Your task to perform on an android device: open the mobile data screen to see how much data has been used Image 0: 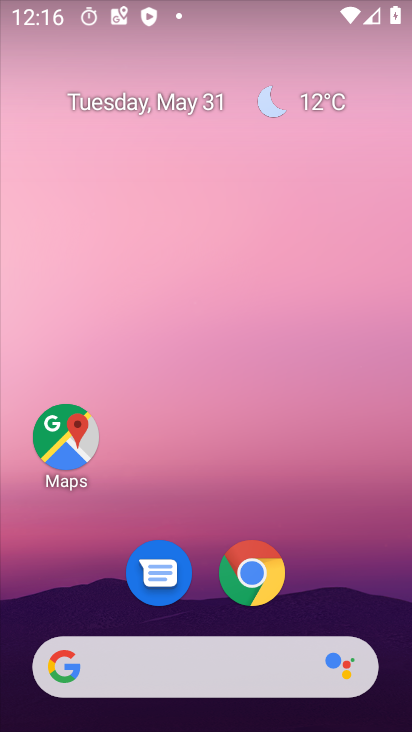
Step 0: click (321, 162)
Your task to perform on an android device: open the mobile data screen to see how much data has been used Image 1: 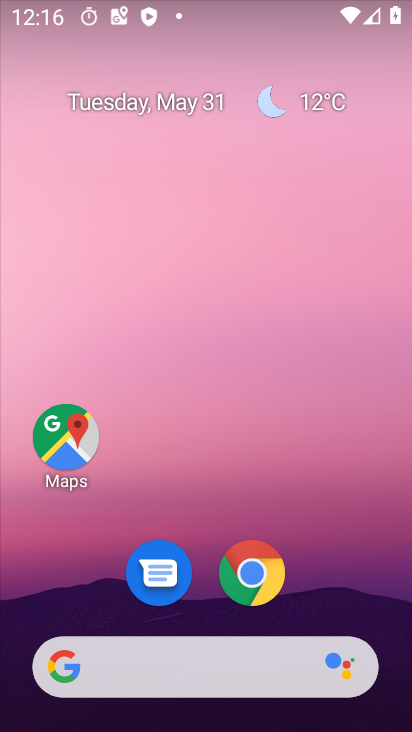
Step 1: drag from (343, 491) to (355, 122)
Your task to perform on an android device: open the mobile data screen to see how much data has been used Image 2: 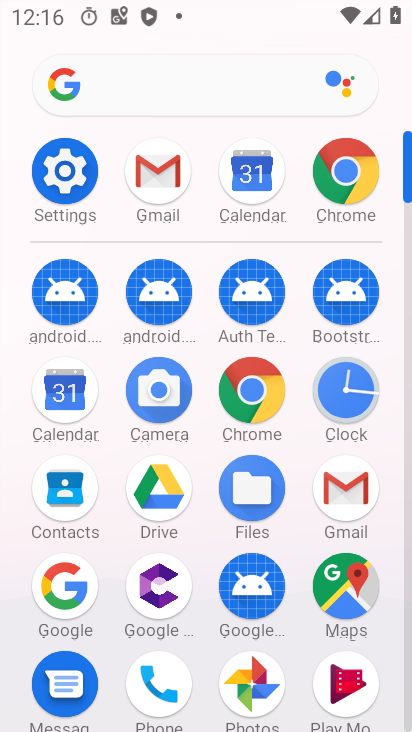
Step 2: click (58, 168)
Your task to perform on an android device: open the mobile data screen to see how much data has been used Image 3: 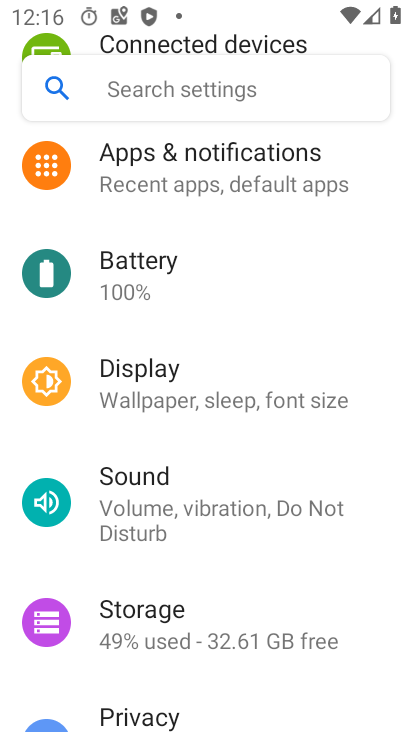
Step 3: drag from (149, 269) to (225, 589)
Your task to perform on an android device: open the mobile data screen to see how much data has been used Image 4: 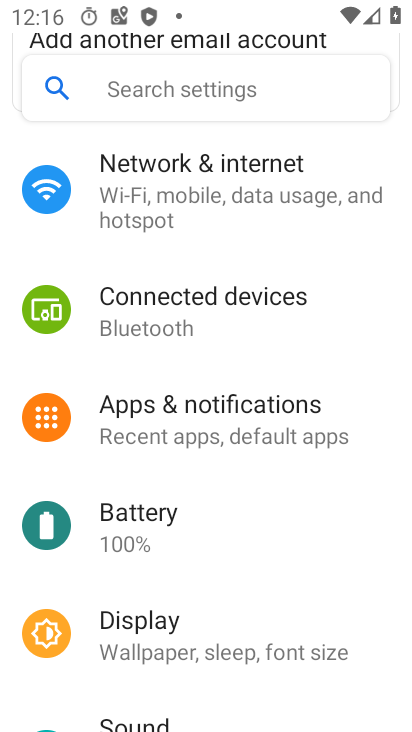
Step 4: drag from (224, 224) to (326, 622)
Your task to perform on an android device: open the mobile data screen to see how much data has been used Image 5: 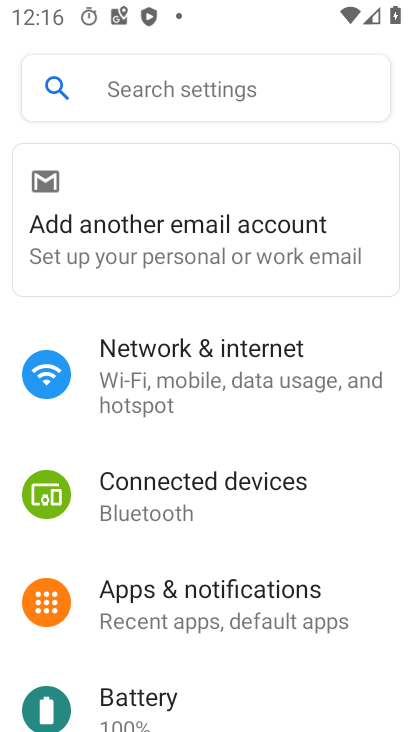
Step 5: click (252, 338)
Your task to perform on an android device: open the mobile data screen to see how much data has been used Image 6: 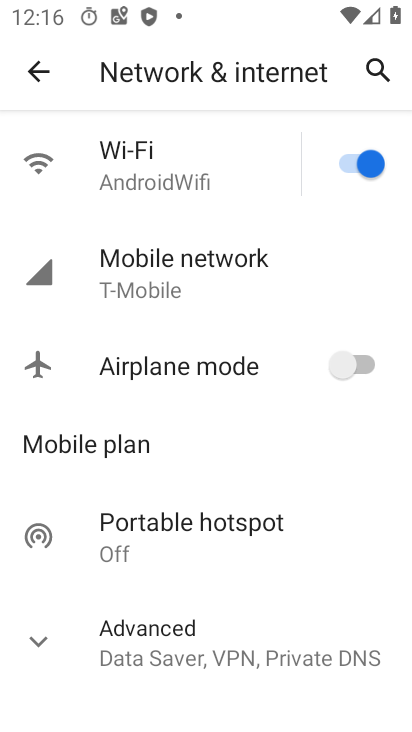
Step 6: click (134, 276)
Your task to perform on an android device: open the mobile data screen to see how much data has been used Image 7: 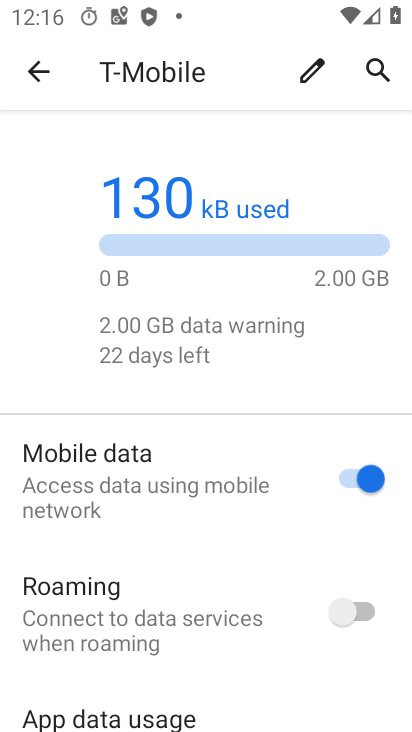
Step 7: task complete